Your task to perform on an android device: open app "Spotify: Music and Podcasts" Image 0: 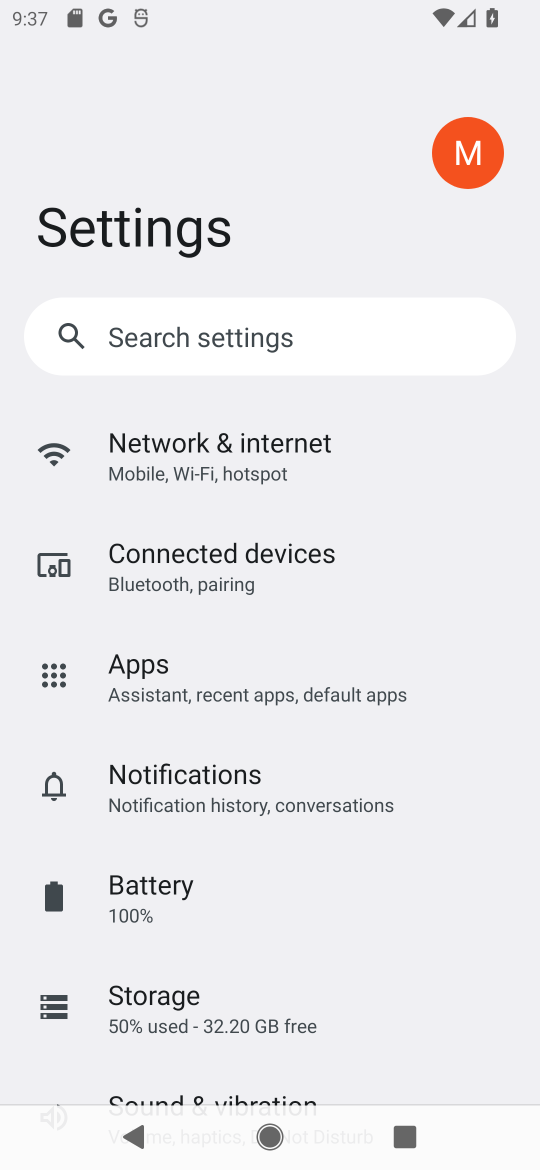
Step 0: press home button
Your task to perform on an android device: open app "Spotify: Music and Podcasts" Image 1: 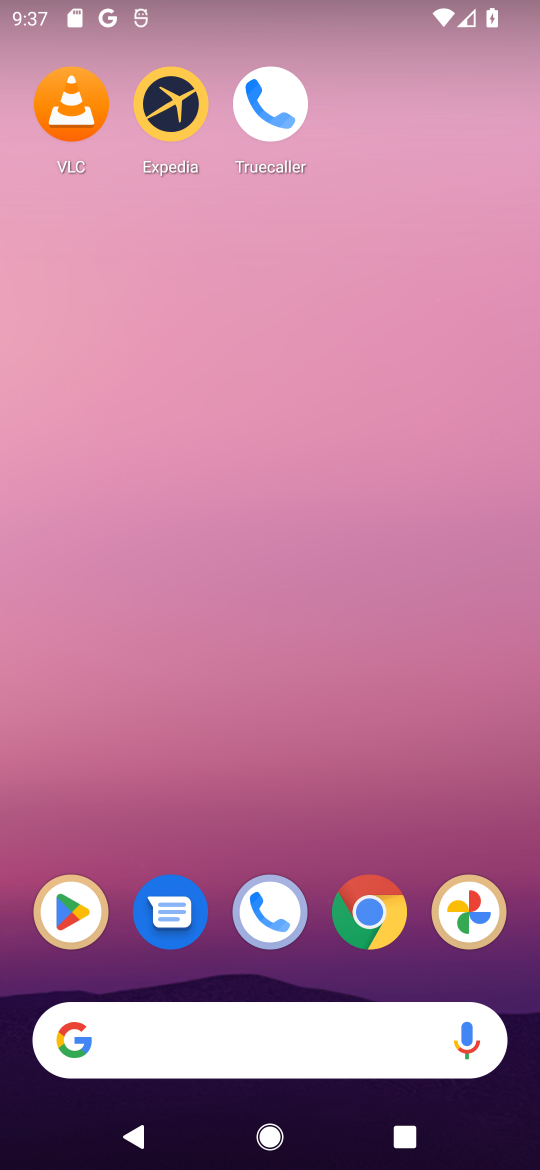
Step 1: click (71, 901)
Your task to perform on an android device: open app "Spotify: Music and Podcasts" Image 2: 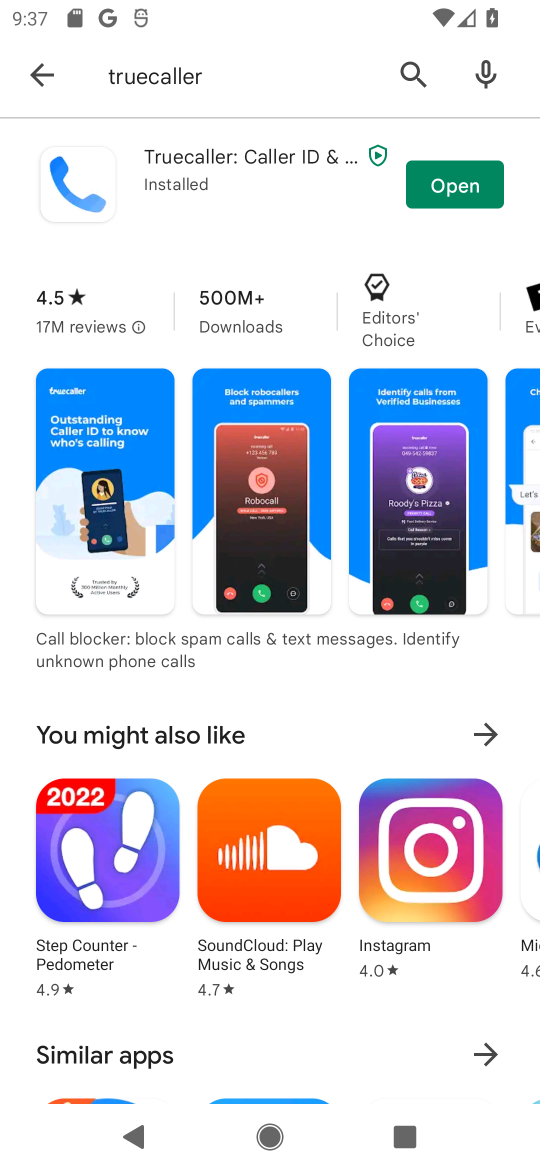
Step 2: click (409, 68)
Your task to perform on an android device: open app "Spotify: Music and Podcasts" Image 3: 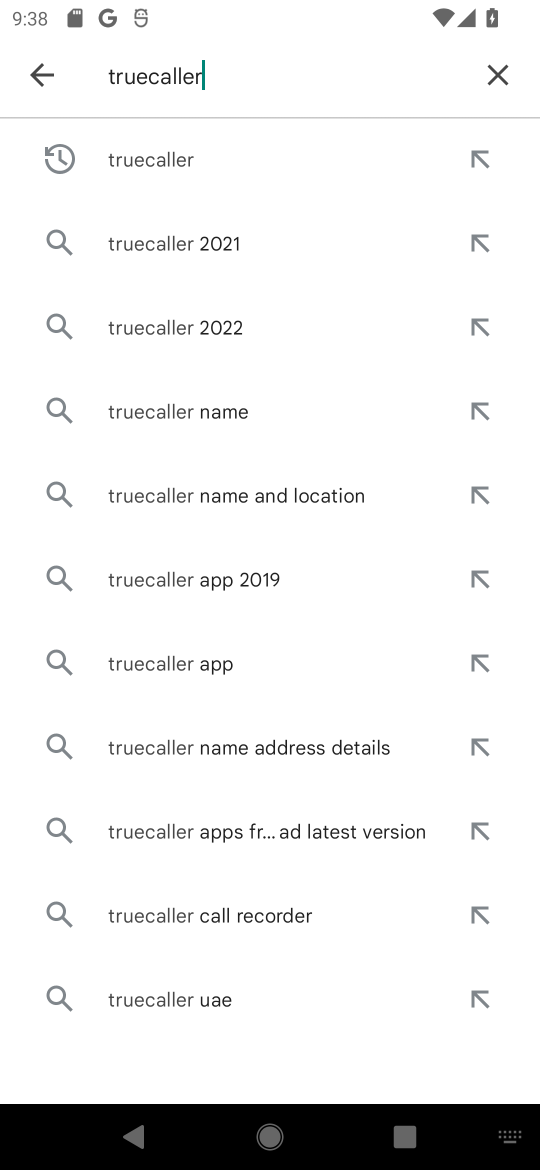
Step 3: click (499, 72)
Your task to perform on an android device: open app "Spotify: Music and Podcasts" Image 4: 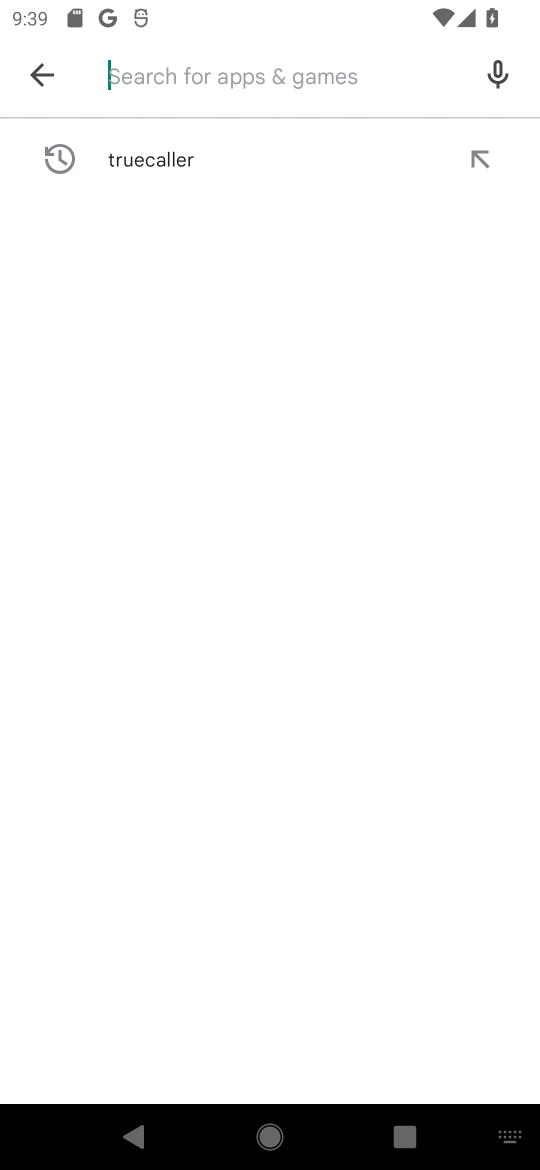
Step 4: type "Spotify: Music and Podcasts"
Your task to perform on an android device: open app "Spotify: Music and Podcasts" Image 5: 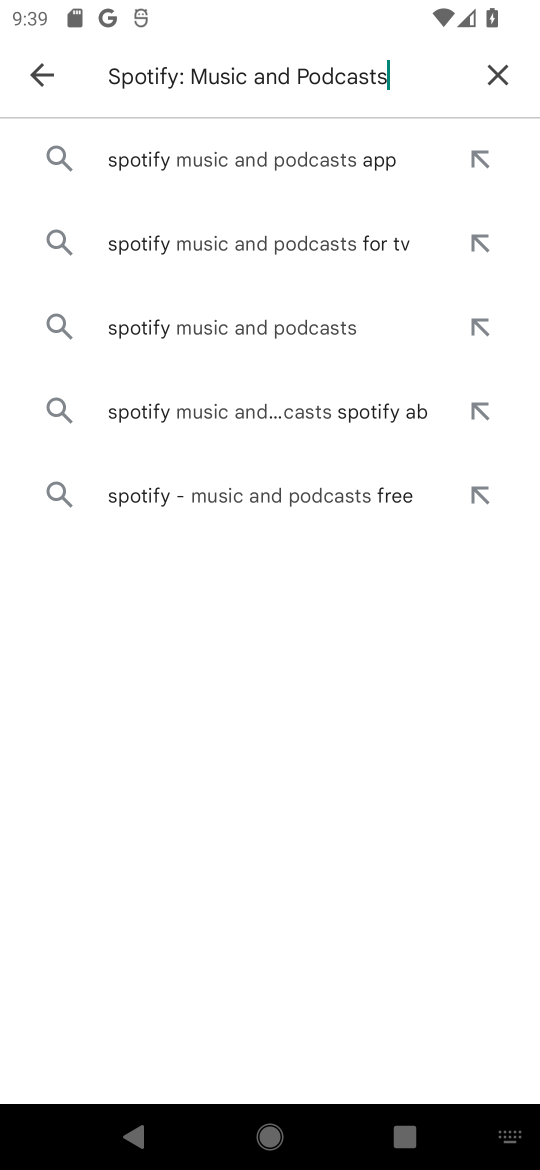
Step 5: click (288, 160)
Your task to perform on an android device: open app "Spotify: Music and Podcasts" Image 6: 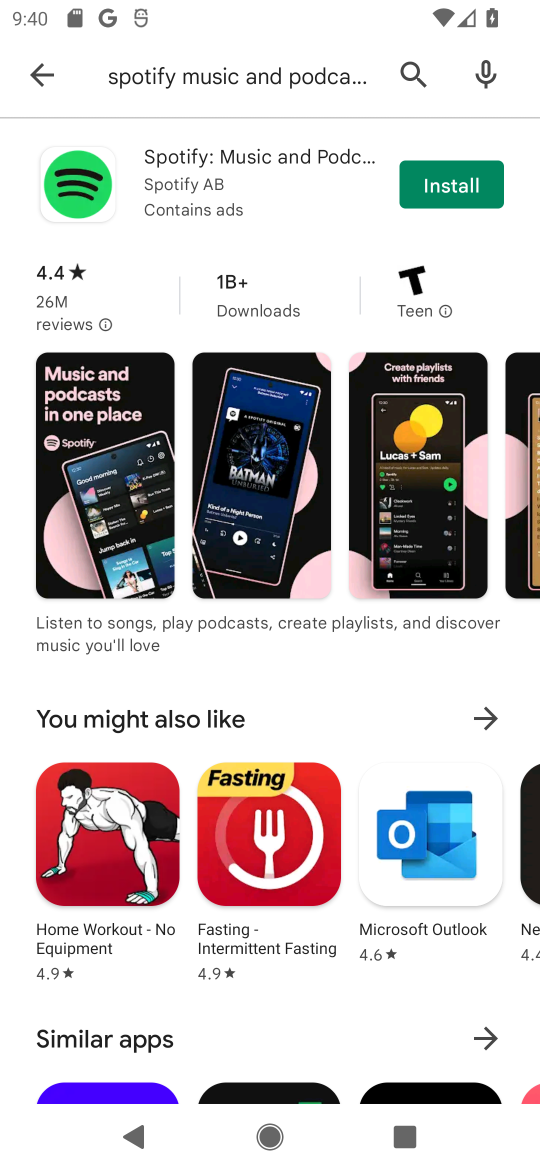
Step 6: click (427, 183)
Your task to perform on an android device: open app "Spotify: Music and Podcasts" Image 7: 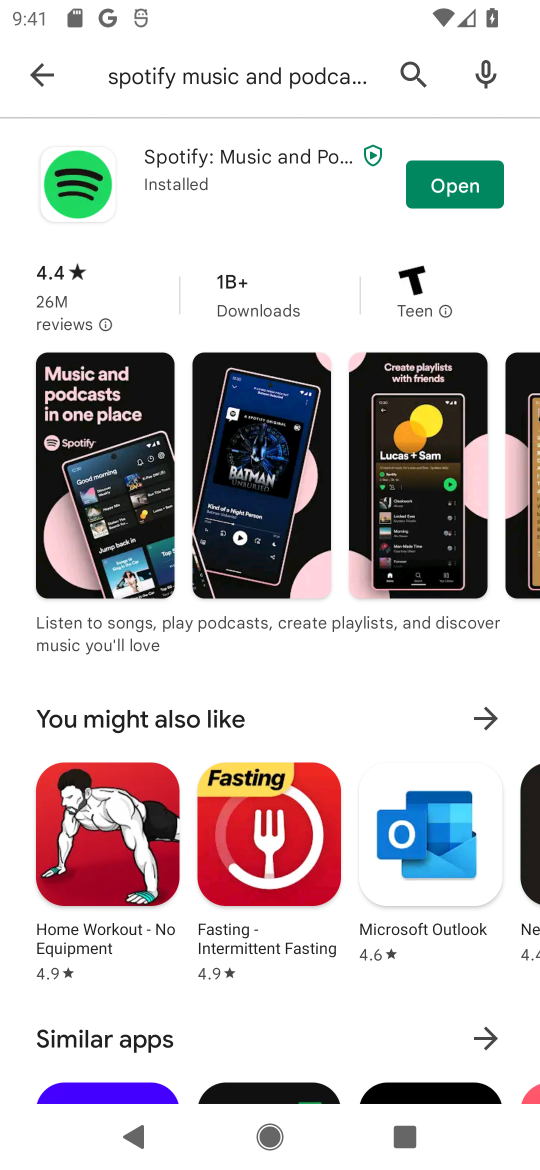
Step 7: click (446, 185)
Your task to perform on an android device: open app "Spotify: Music and Podcasts" Image 8: 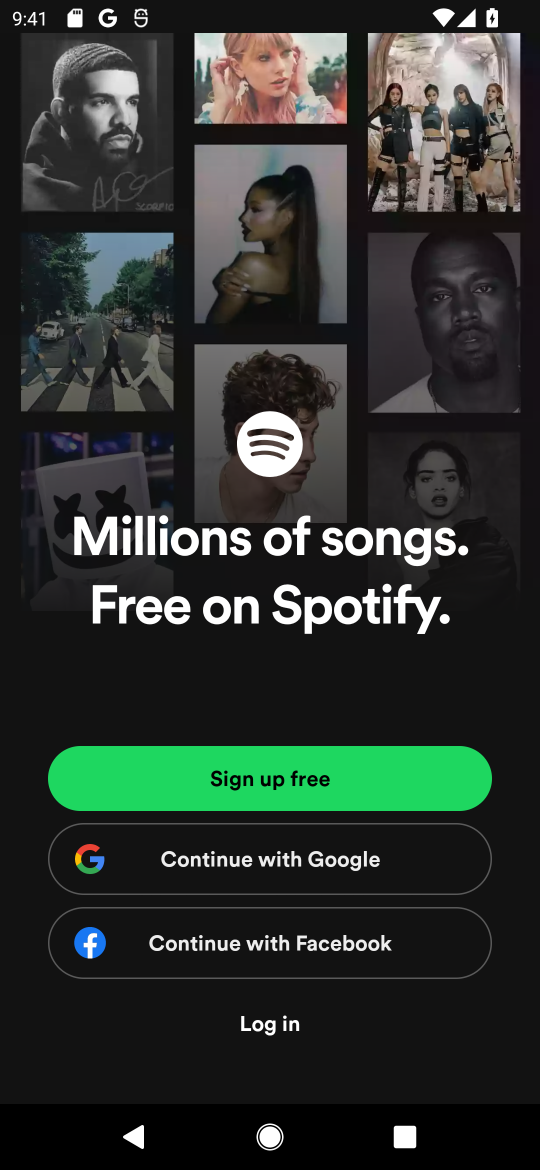
Step 8: click (273, 864)
Your task to perform on an android device: open app "Spotify: Music and Podcasts" Image 9: 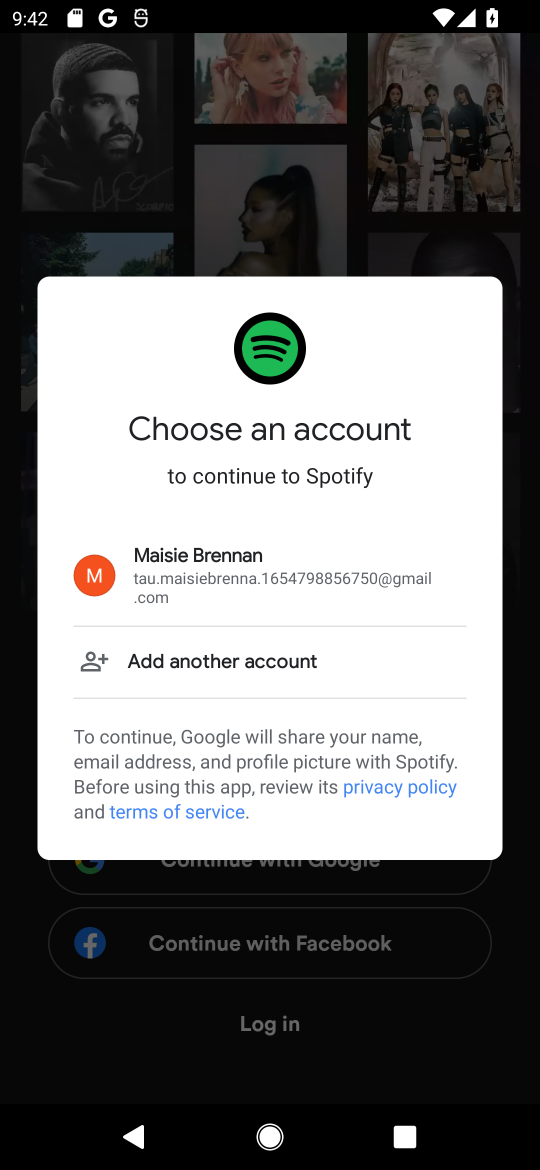
Step 9: click (197, 590)
Your task to perform on an android device: open app "Spotify: Music and Podcasts" Image 10: 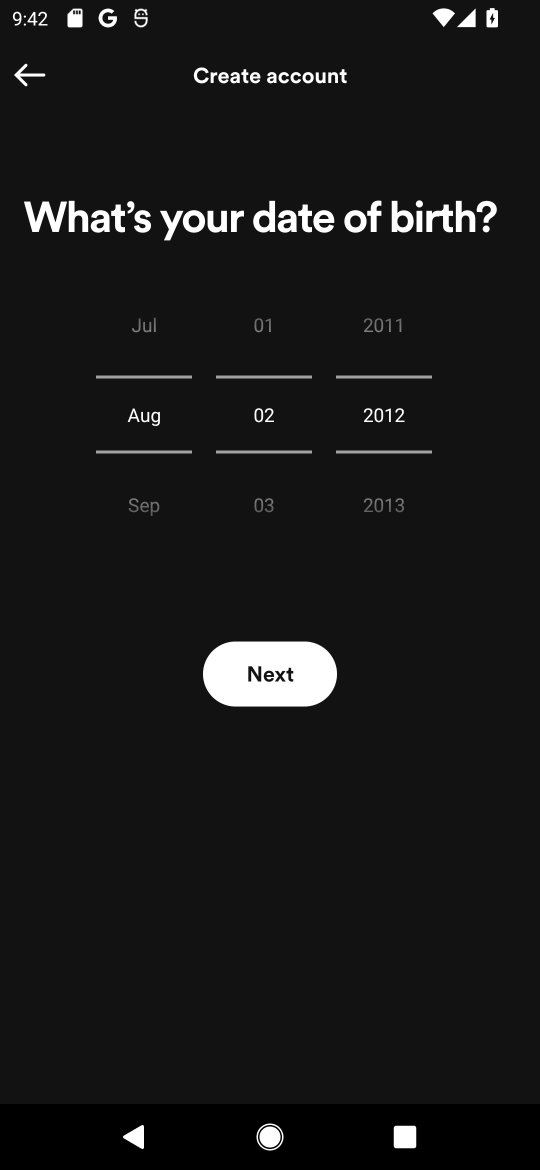
Step 10: drag from (377, 350) to (394, 609)
Your task to perform on an android device: open app "Spotify: Music and Podcasts" Image 11: 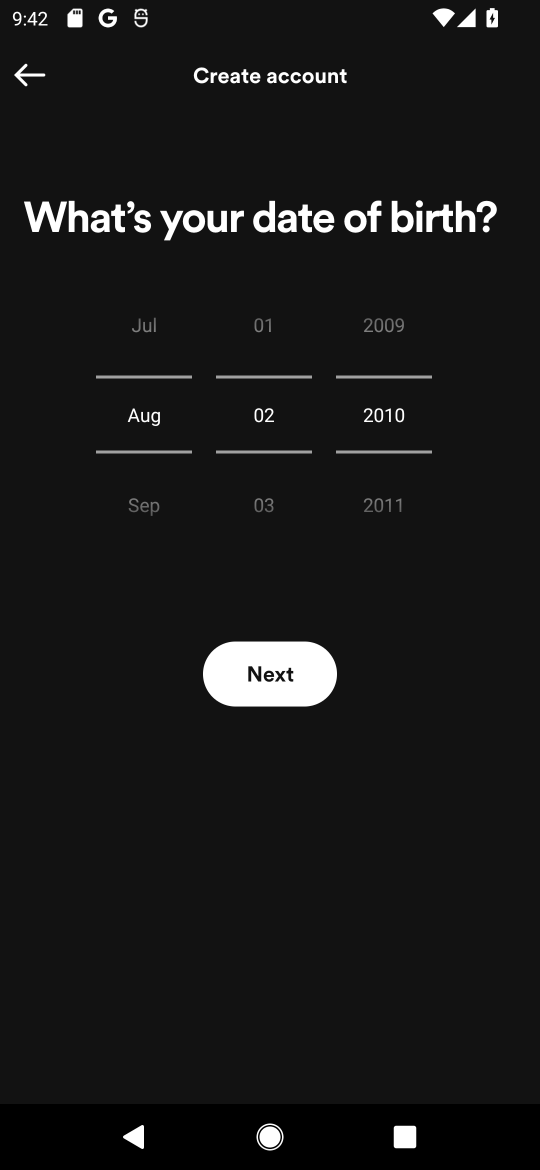
Step 11: drag from (390, 332) to (393, 590)
Your task to perform on an android device: open app "Spotify: Music and Podcasts" Image 12: 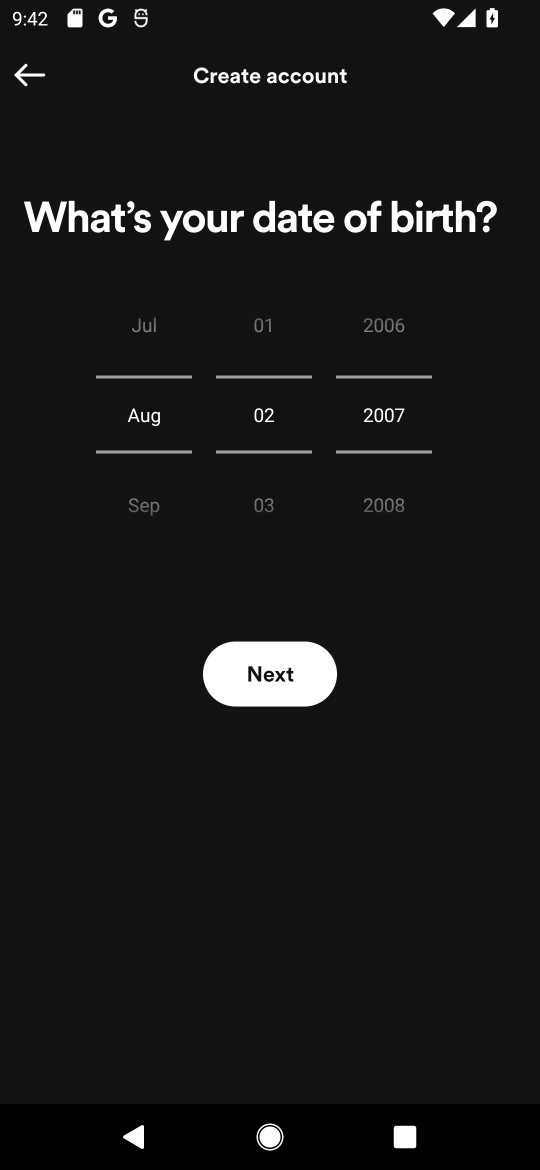
Step 12: drag from (384, 330) to (397, 580)
Your task to perform on an android device: open app "Spotify: Music and Podcasts" Image 13: 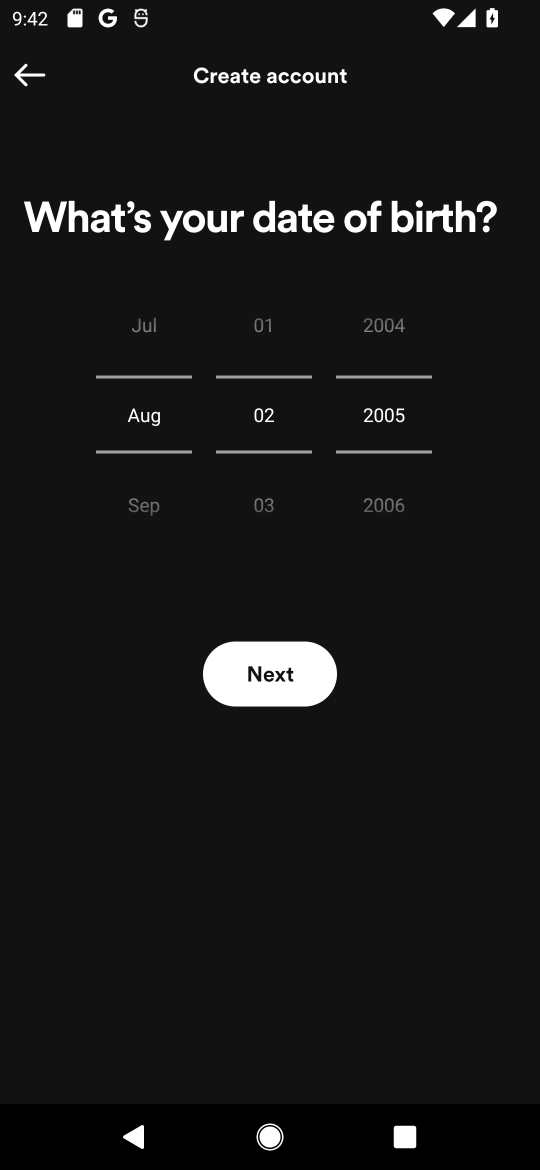
Step 13: drag from (389, 322) to (384, 596)
Your task to perform on an android device: open app "Spotify: Music and Podcasts" Image 14: 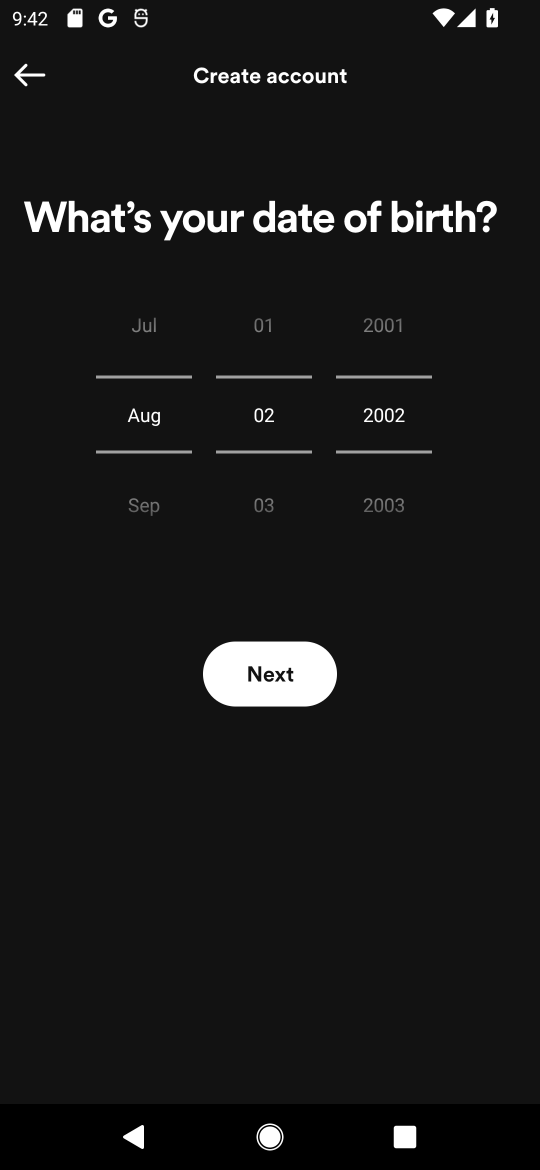
Step 14: drag from (393, 317) to (401, 644)
Your task to perform on an android device: open app "Spotify: Music and Podcasts" Image 15: 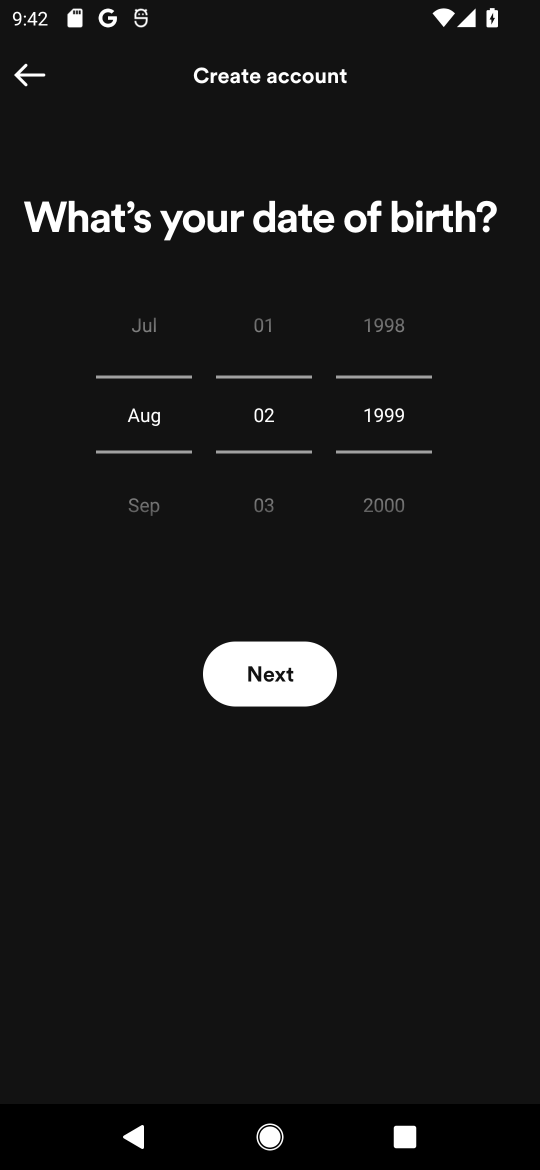
Step 15: click (244, 679)
Your task to perform on an android device: open app "Spotify: Music and Podcasts" Image 16: 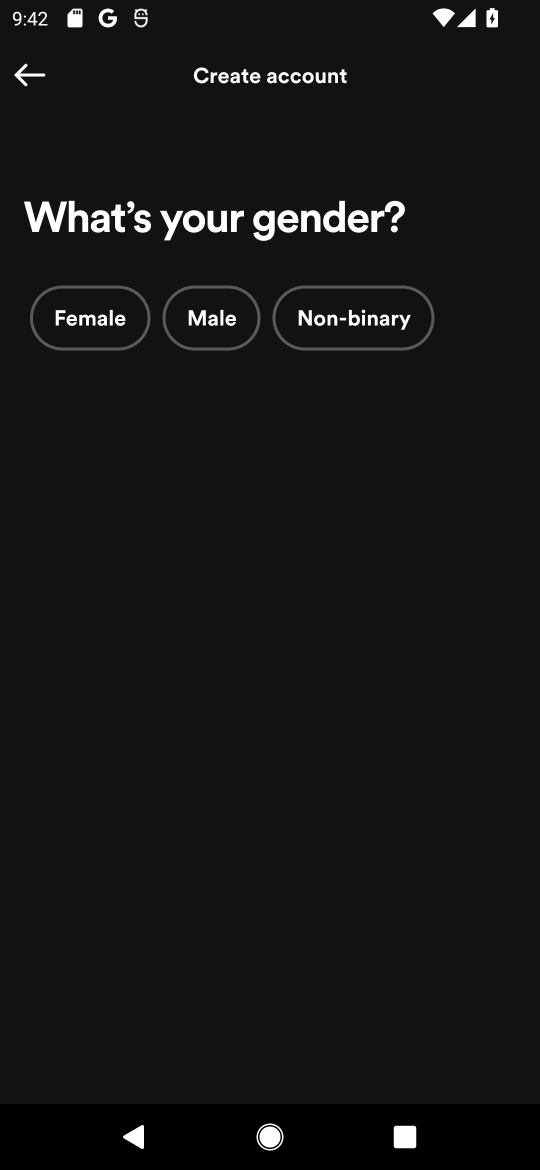
Step 16: click (217, 321)
Your task to perform on an android device: open app "Spotify: Music and Podcasts" Image 17: 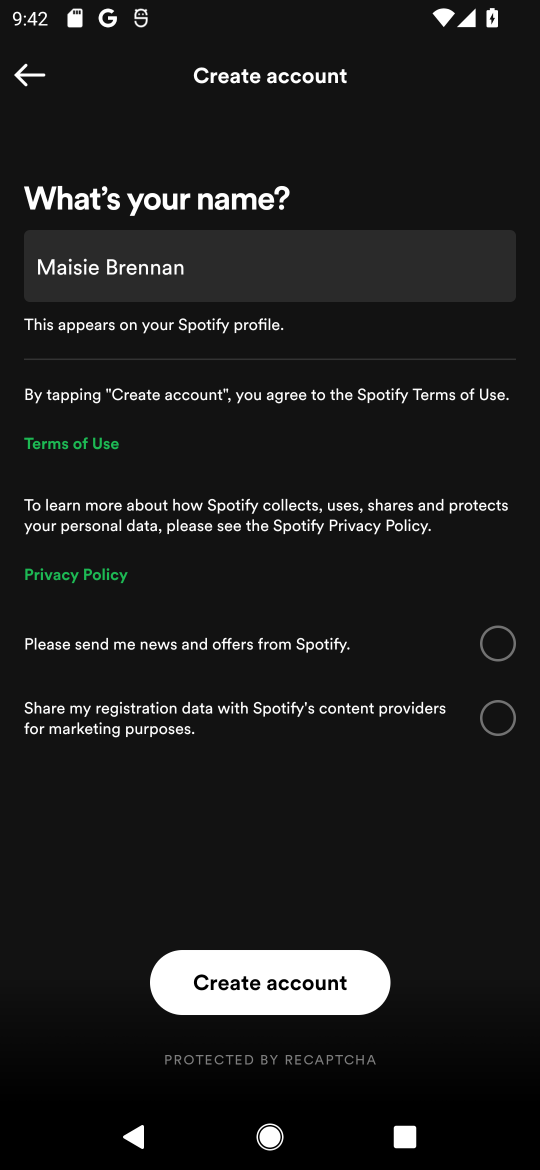
Step 17: click (259, 976)
Your task to perform on an android device: open app "Spotify: Music and Podcasts" Image 18: 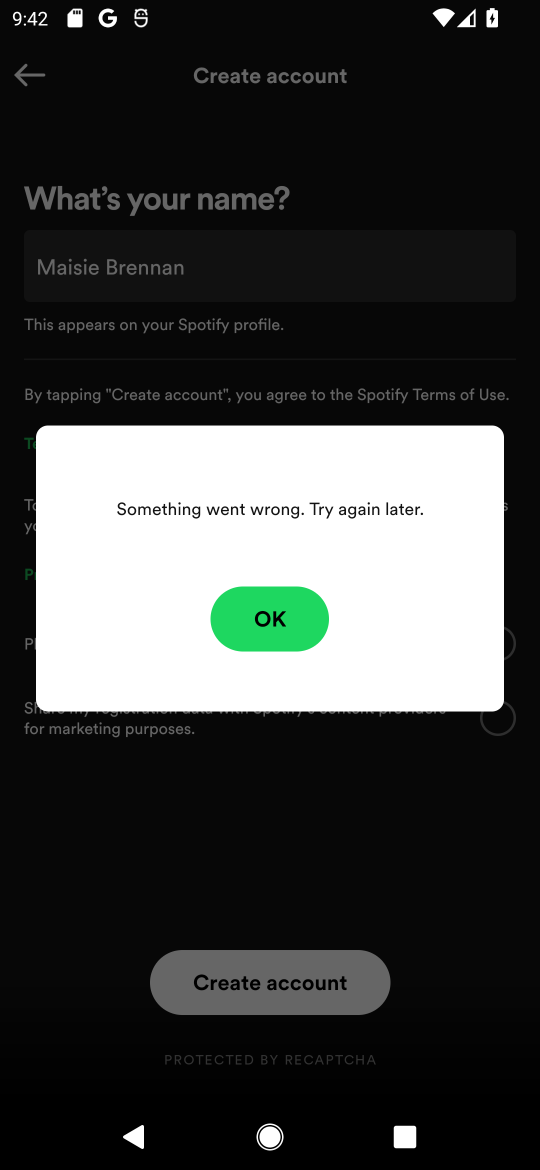
Step 18: click (282, 599)
Your task to perform on an android device: open app "Spotify: Music and Podcasts" Image 19: 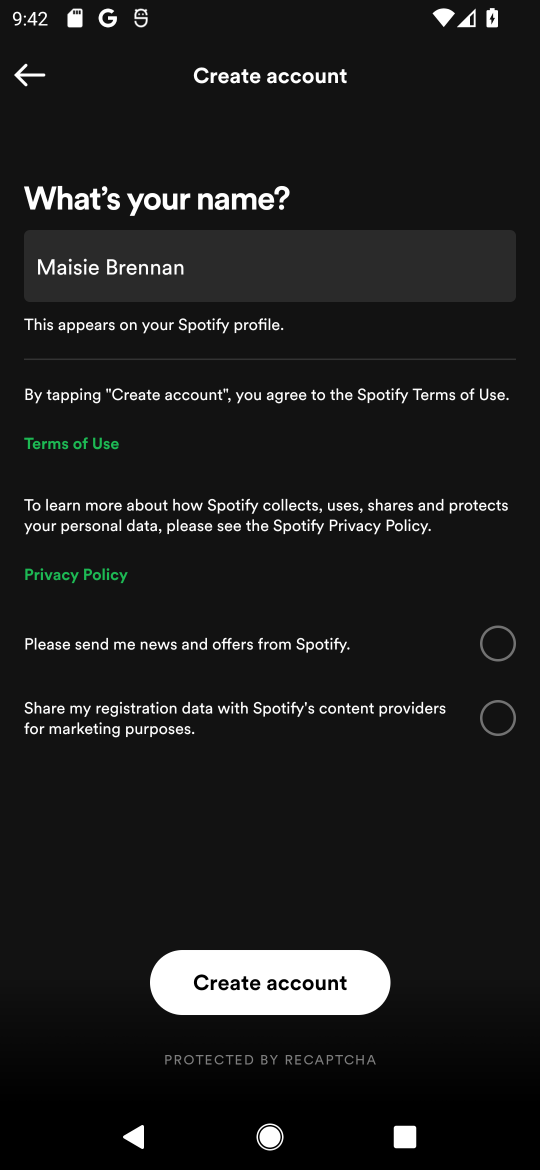
Step 19: task complete